Your task to perform on an android device: toggle translation in the chrome app Image 0: 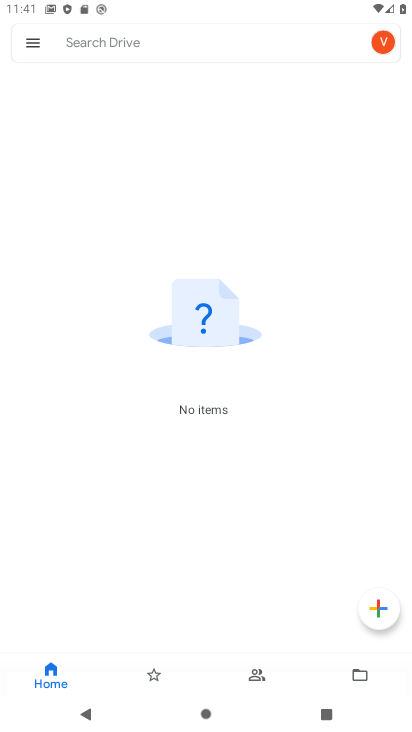
Step 0: press home button
Your task to perform on an android device: toggle translation in the chrome app Image 1: 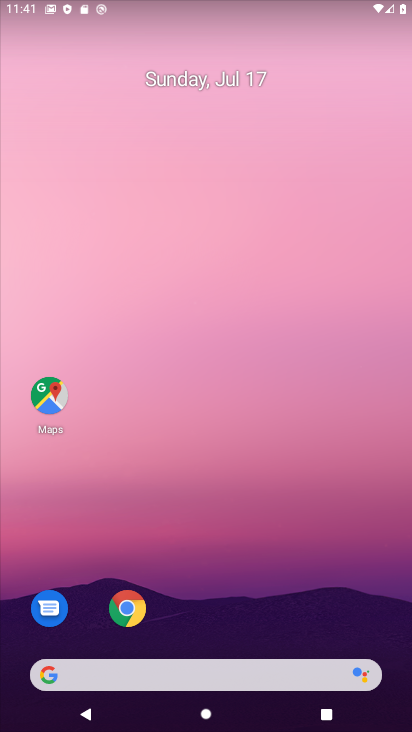
Step 1: drag from (197, 682) to (291, 146)
Your task to perform on an android device: toggle translation in the chrome app Image 2: 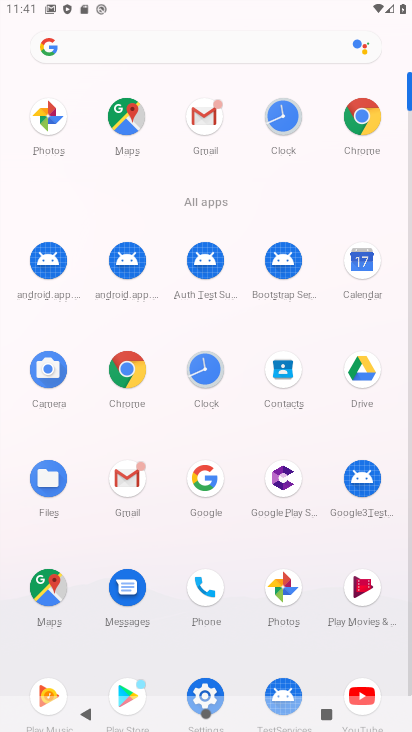
Step 2: click (137, 373)
Your task to perform on an android device: toggle translation in the chrome app Image 3: 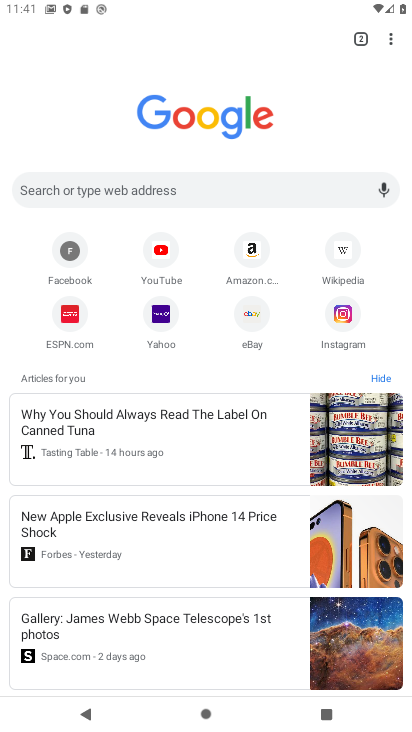
Step 3: drag from (387, 32) to (306, 330)
Your task to perform on an android device: toggle translation in the chrome app Image 4: 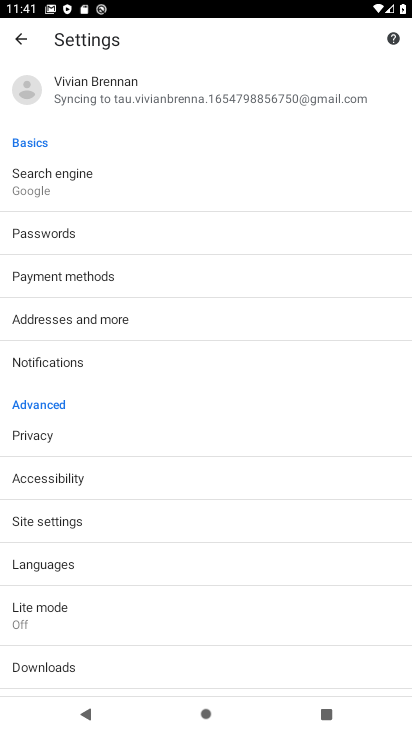
Step 4: click (83, 562)
Your task to perform on an android device: toggle translation in the chrome app Image 5: 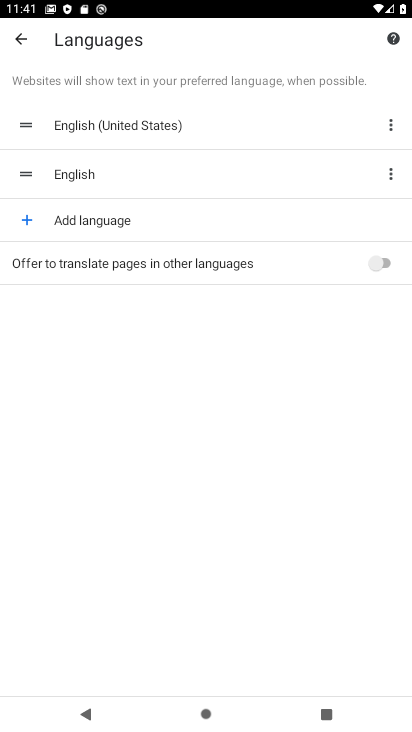
Step 5: click (385, 264)
Your task to perform on an android device: toggle translation in the chrome app Image 6: 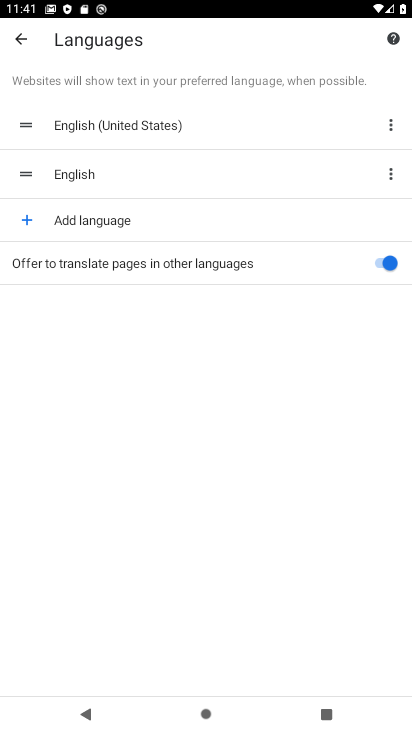
Step 6: task complete